Your task to perform on an android device: Check the weather Image 0: 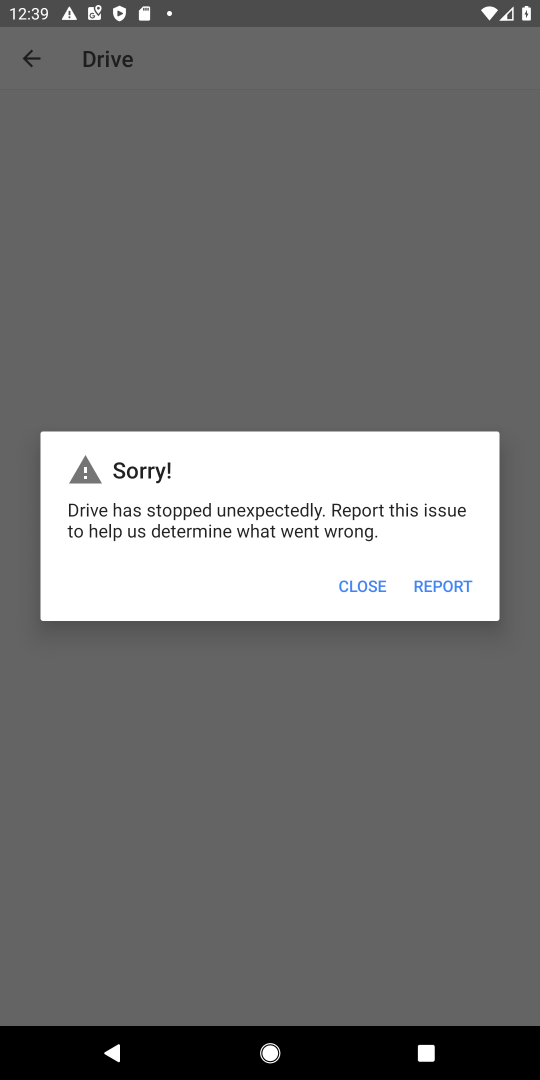
Step 0: press home button
Your task to perform on an android device: Check the weather Image 1: 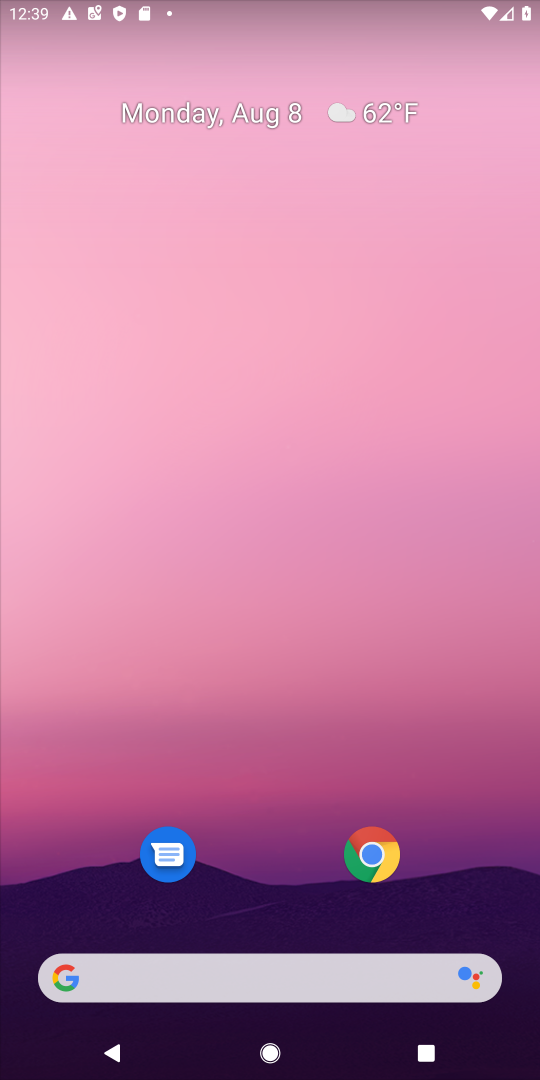
Step 1: click (62, 970)
Your task to perform on an android device: Check the weather Image 2: 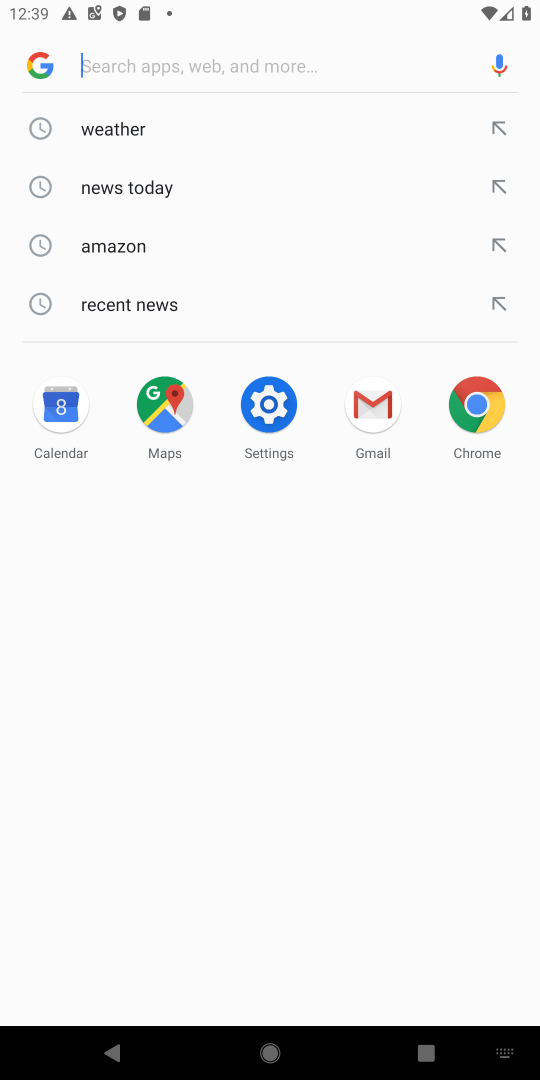
Step 2: type "weather"
Your task to perform on an android device: Check the weather Image 3: 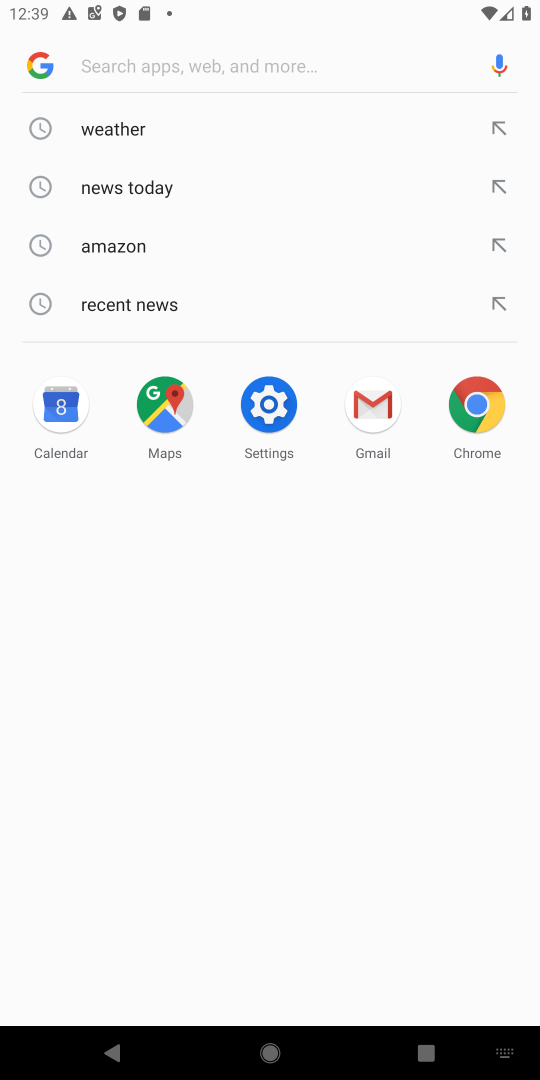
Step 3: click (115, 133)
Your task to perform on an android device: Check the weather Image 4: 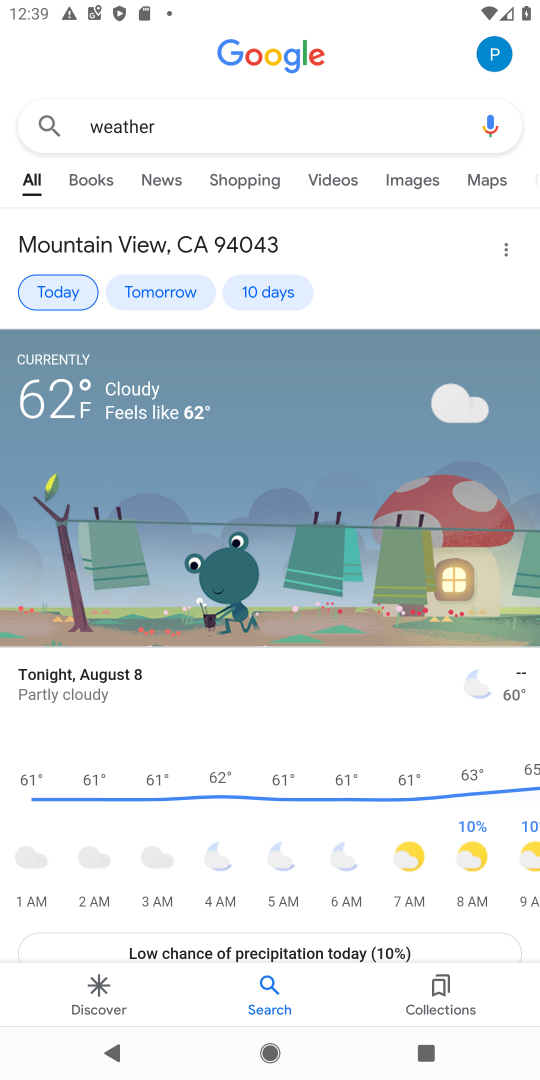
Step 4: task complete